Your task to perform on an android device: Open Maps and search for coffee Image 0: 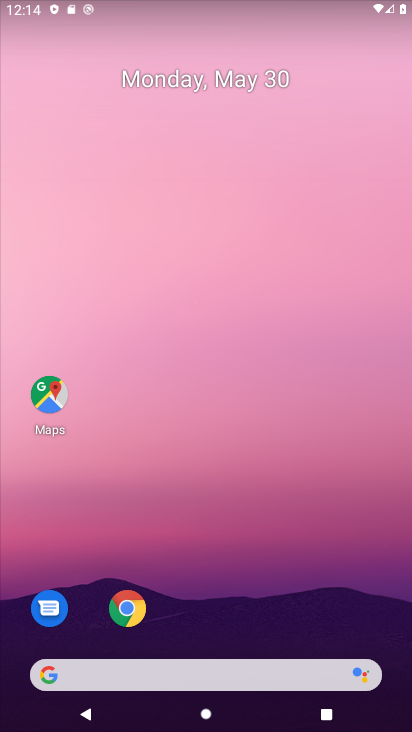
Step 0: click (56, 387)
Your task to perform on an android device: Open Maps and search for coffee Image 1: 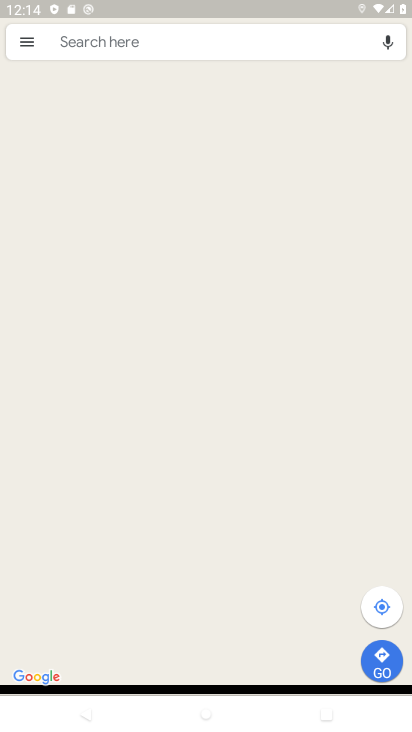
Step 1: click (140, 45)
Your task to perform on an android device: Open Maps and search for coffee Image 2: 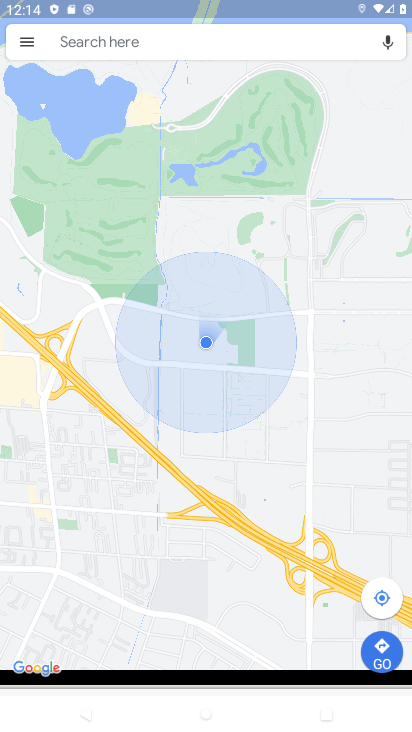
Step 2: click (140, 45)
Your task to perform on an android device: Open Maps and search for coffee Image 3: 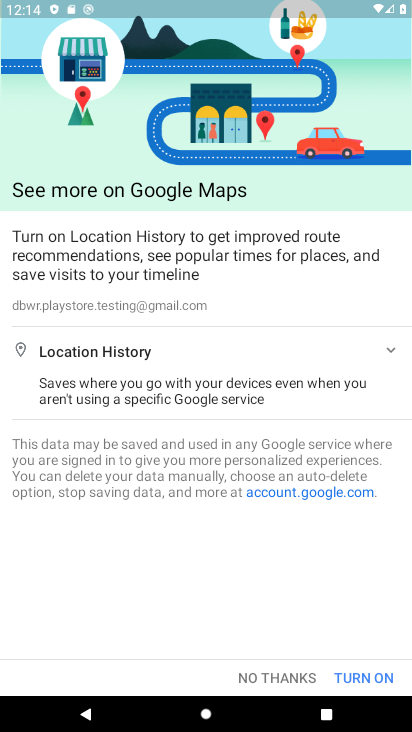
Step 3: click (377, 671)
Your task to perform on an android device: Open Maps and search for coffee Image 4: 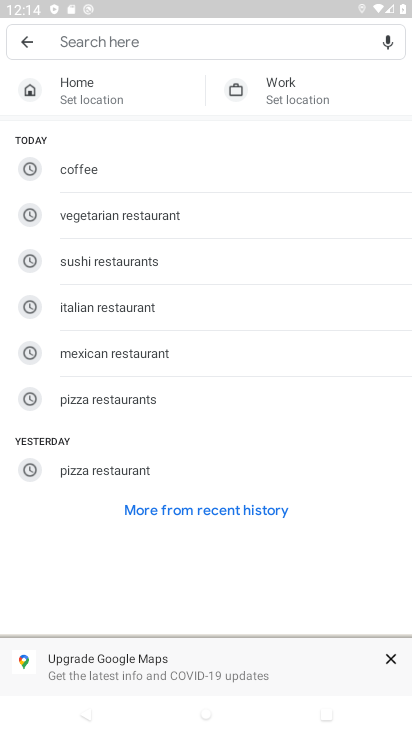
Step 4: click (139, 167)
Your task to perform on an android device: Open Maps and search for coffee Image 5: 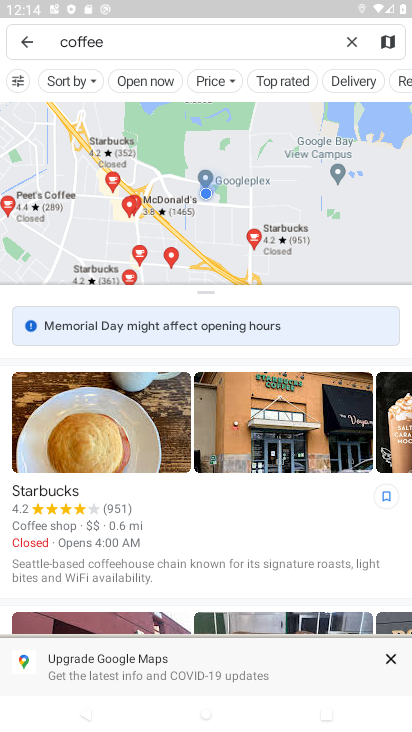
Step 5: task complete